Your task to perform on an android device: turn off improve location accuracy Image 0: 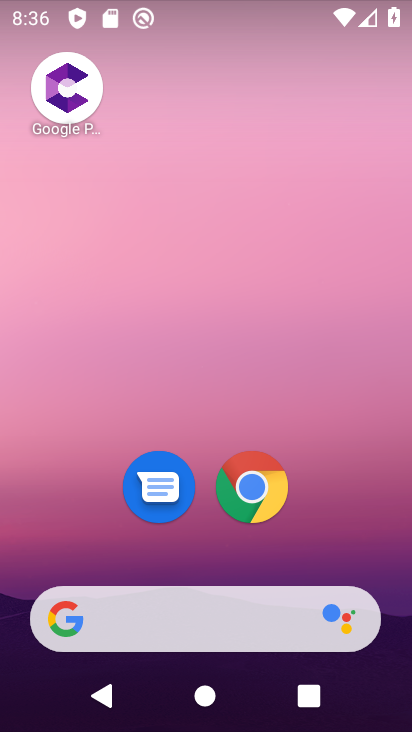
Step 0: drag from (120, 583) to (226, 153)
Your task to perform on an android device: turn off improve location accuracy Image 1: 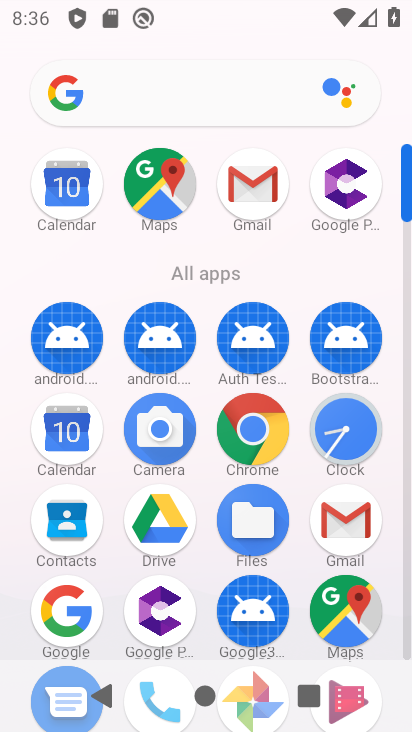
Step 1: drag from (147, 620) to (226, 345)
Your task to perform on an android device: turn off improve location accuracy Image 2: 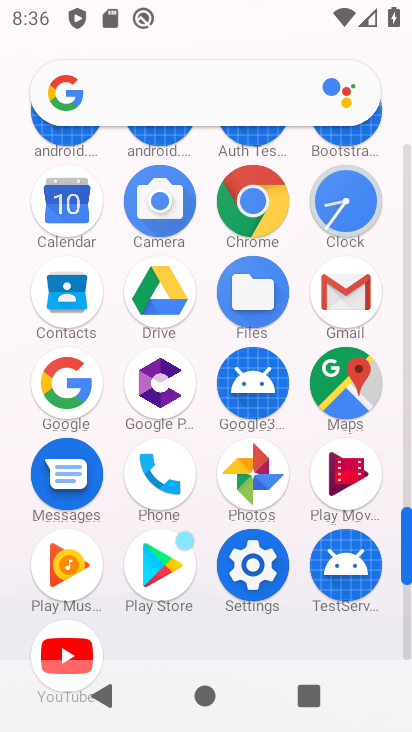
Step 2: click (258, 586)
Your task to perform on an android device: turn off improve location accuracy Image 3: 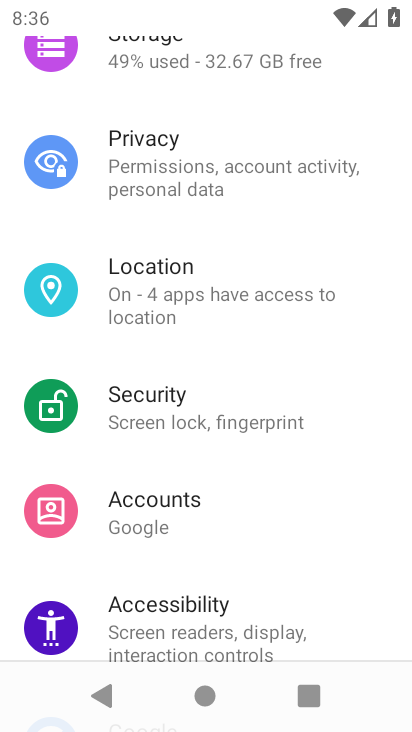
Step 3: drag from (162, 576) to (284, 206)
Your task to perform on an android device: turn off improve location accuracy Image 4: 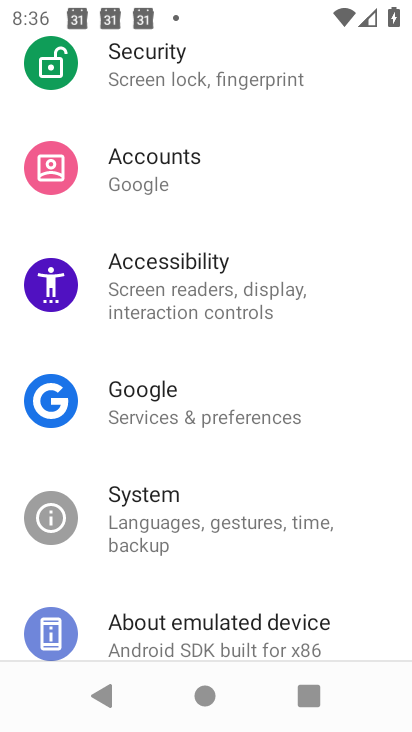
Step 4: drag from (227, 306) to (187, 696)
Your task to perform on an android device: turn off improve location accuracy Image 5: 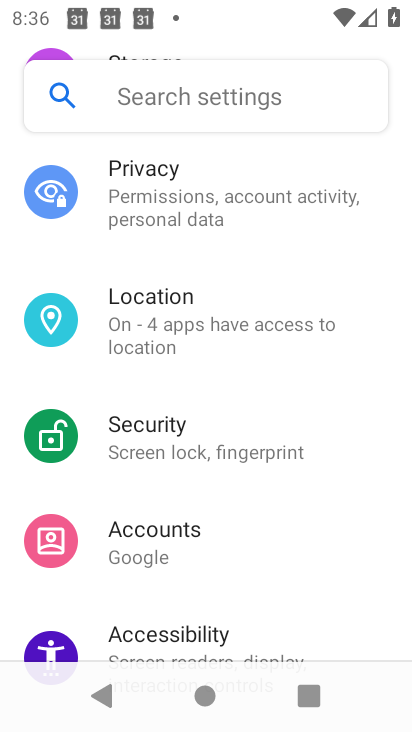
Step 5: click (164, 317)
Your task to perform on an android device: turn off improve location accuracy Image 6: 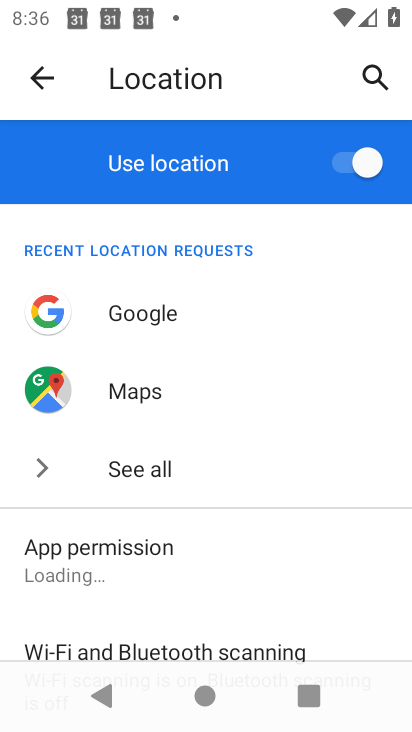
Step 6: drag from (137, 604) to (237, 343)
Your task to perform on an android device: turn off improve location accuracy Image 7: 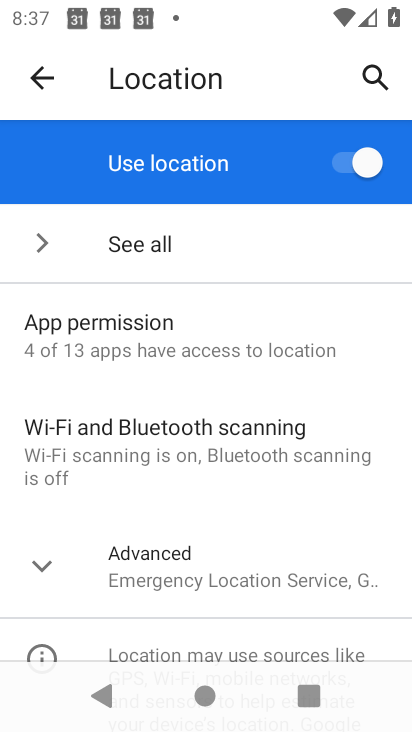
Step 7: click (216, 547)
Your task to perform on an android device: turn off improve location accuracy Image 8: 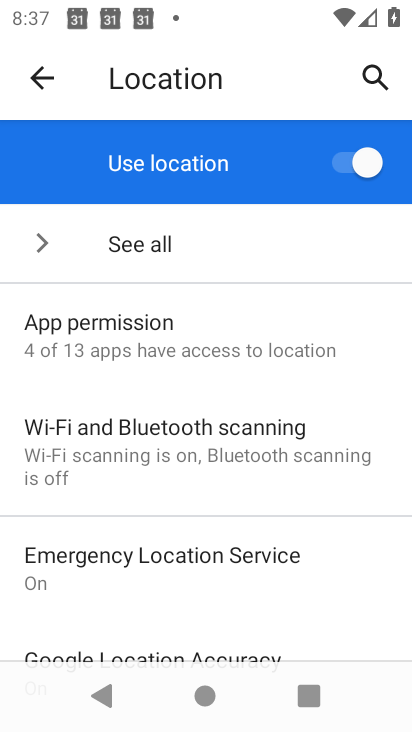
Step 8: drag from (161, 609) to (255, 316)
Your task to perform on an android device: turn off improve location accuracy Image 9: 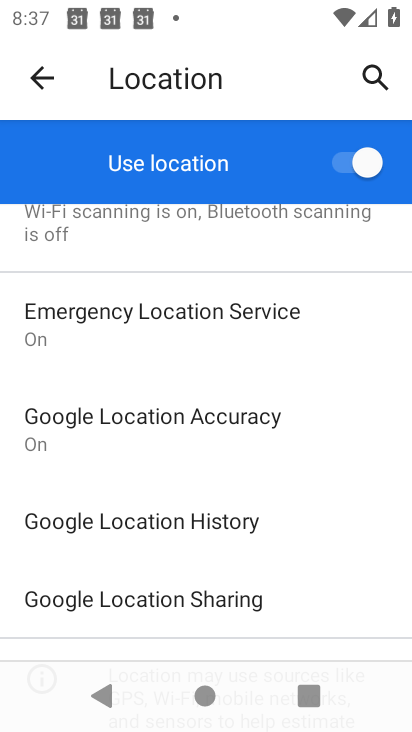
Step 9: click (261, 423)
Your task to perform on an android device: turn off improve location accuracy Image 10: 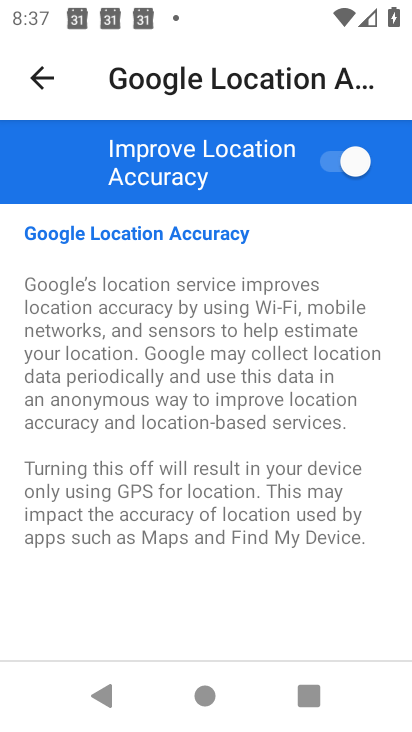
Step 10: click (329, 173)
Your task to perform on an android device: turn off improve location accuracy Image 11: 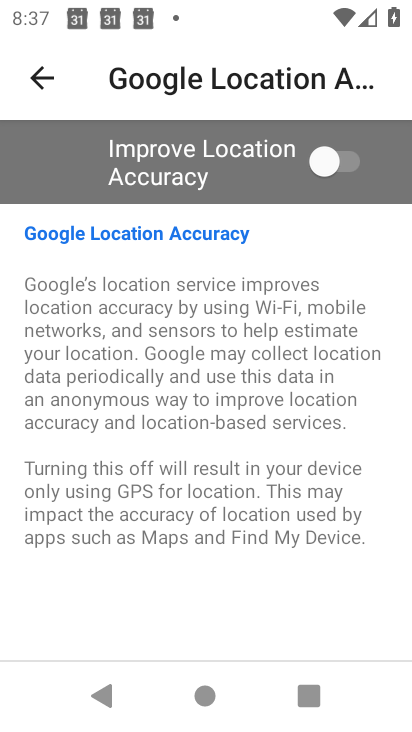
Step 11: task complete